Your task to perform on an android device: Do I have any events today? Image 0: 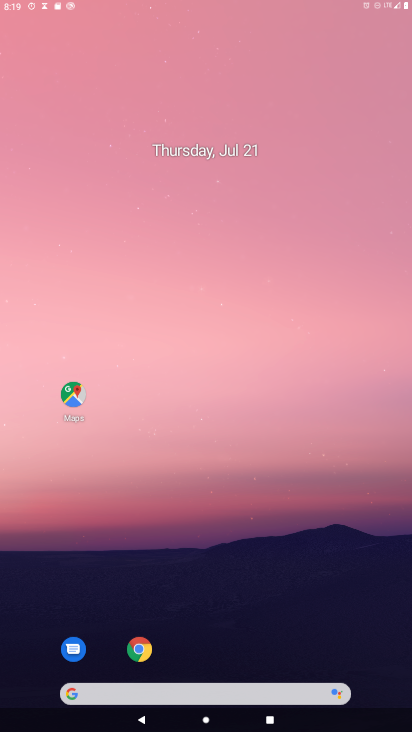
Step 0: drag from (305, 442) to (235, 69)
Your task to perform on an android device: Do I have any events today? Image 1: 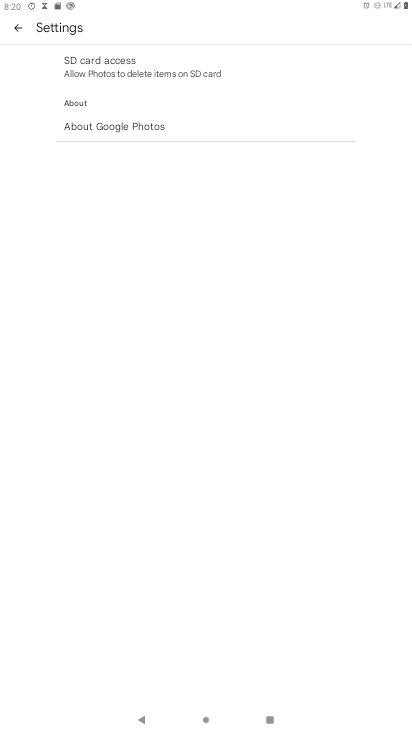
Step 1: press home button
Your task to perform on an android device: Do I have any events today? Image 2: 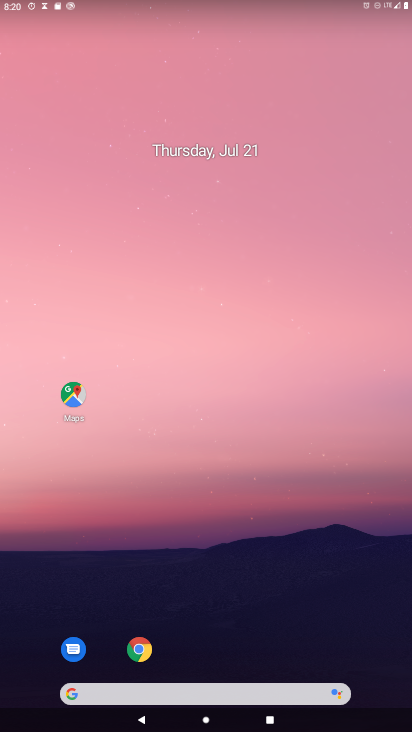
Step 2: drag from (381, 627) to (234, 0)
Your task to perform on an android device: Do I have any events today? Image 3: 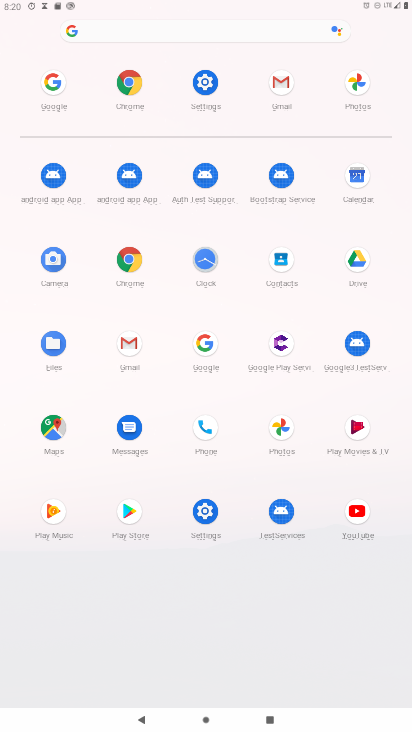
Step 3: click (365, 180)
Your task to perform on an android device: Do I have any events today? Image 4: 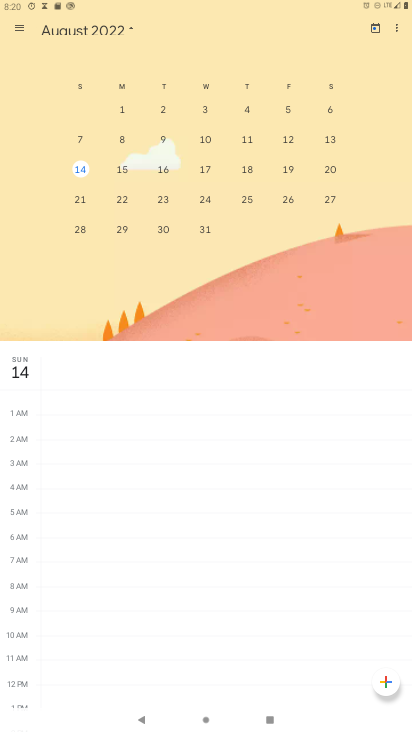
Step 4: task complete